Your task to perform on an android device: Open the phone app and click the voicemail tab. Image 0: 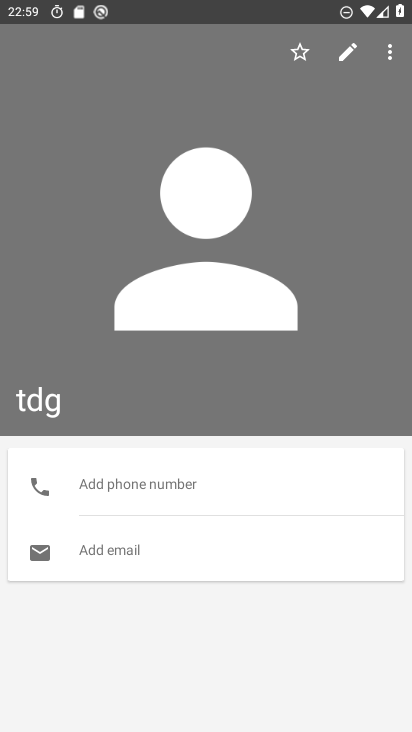
Step 0: press home button
Your task to perform on an android device: Open the phone app and click the voicemail tab. Image 1: 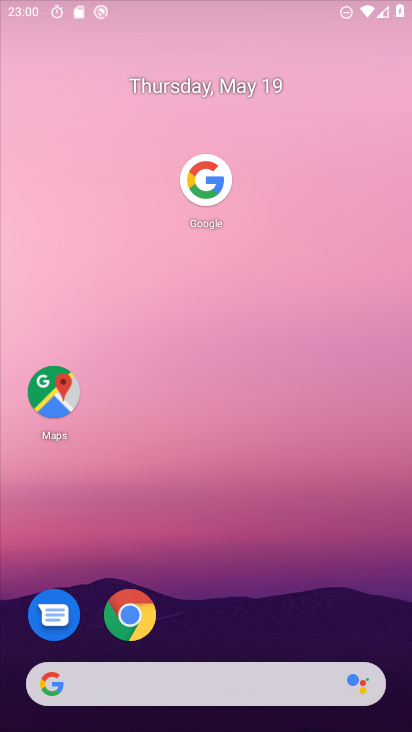
Step 1: drag from (274, 566) to (321, 14)
Your task to perform on an android device: Open the phone app and click the voicemail tab. Image 2: 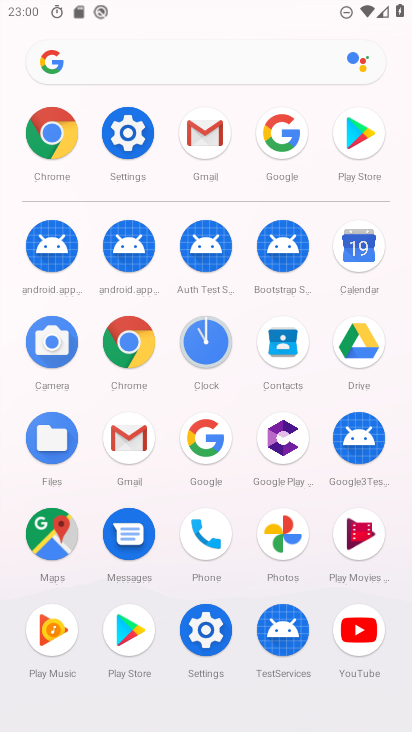
Step 2: click (198, 543)
Your task to perform on an android device: Open the phone app and click the voicemail tab. Image 3: 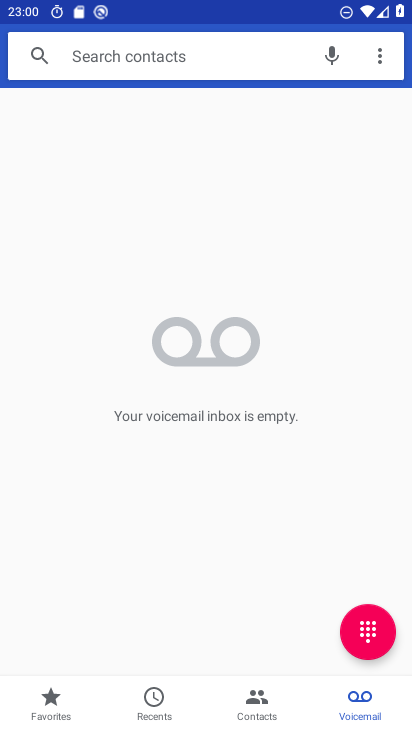
Step 3: click (357, 697)
Your task to perform on an android device: Open the phone app and click the voicemail tab. Image 4: 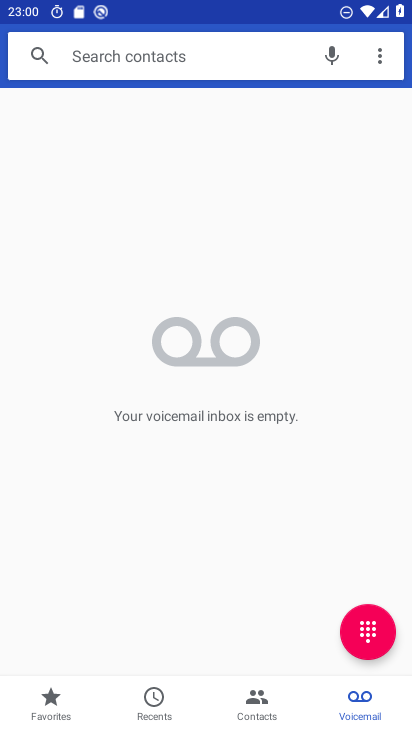
Step 4: task complete